Your task to perform on an android device: set default search engine in the chrome app Image 0: 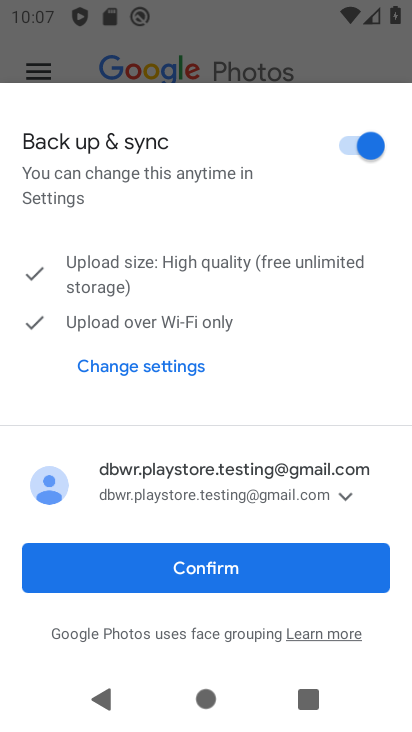
Step 0: press home button
Your task to perform on an android device: set default search engine in the chrome app Image 1: 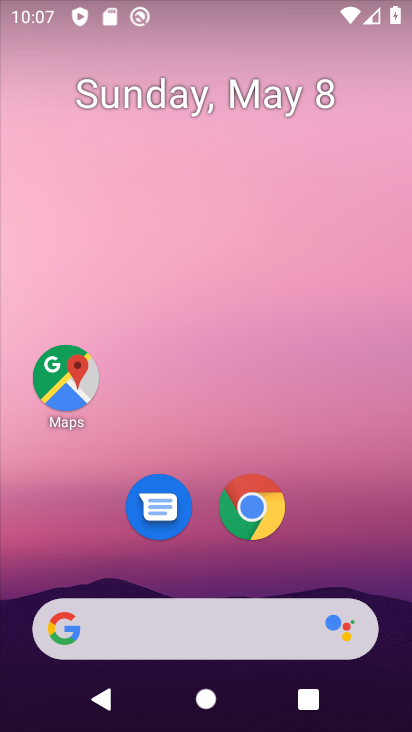
Step 1: click (248, 499)
Your task to perform on an android device: set default search engine in the chrome app Image 2: 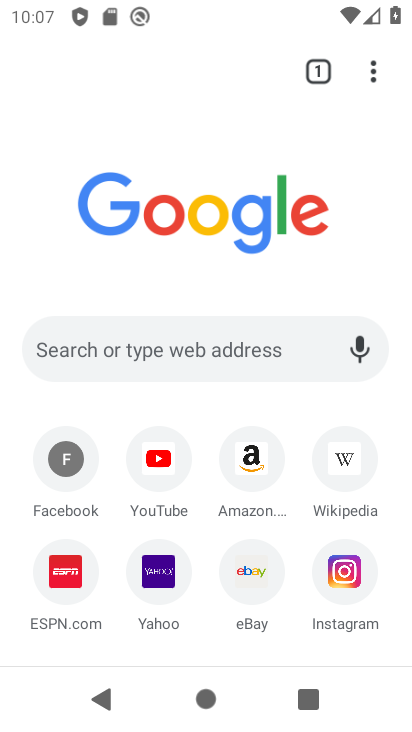
Step 2: click (365, 73)
Your task to perform on an android device: set default search engine in the chrome app Image 3: 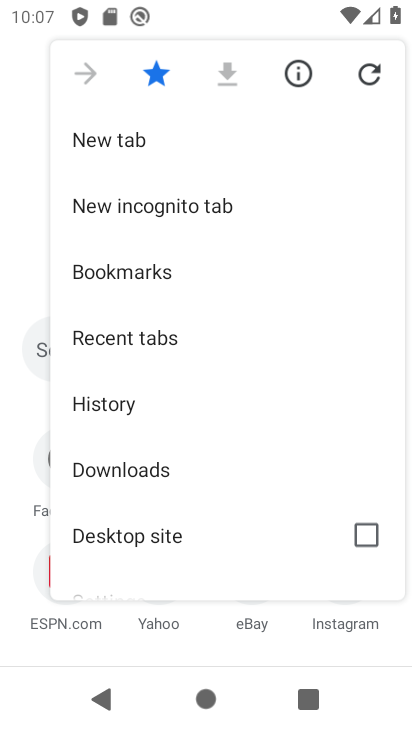
Step 3: drag from (188, 482) to (255, 122)
Your task to perform on an android device: set default search engine in the chrome app Image 4: 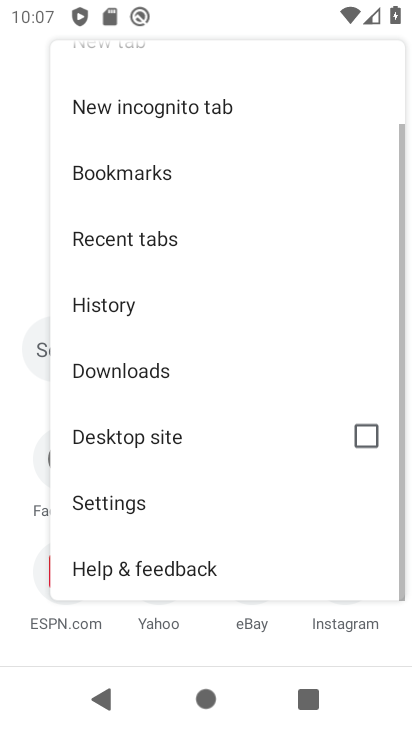
Step 4: click (148, 482)
Your task to perform on an android device: set default search engine in the chrome app Image 5: 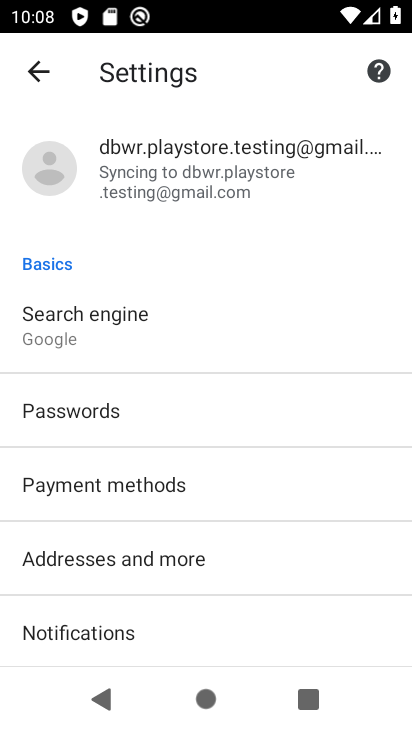
Step 5: click (110, 318)
Your task to perform on an android device: set default search engine in the chrome app Image 6: 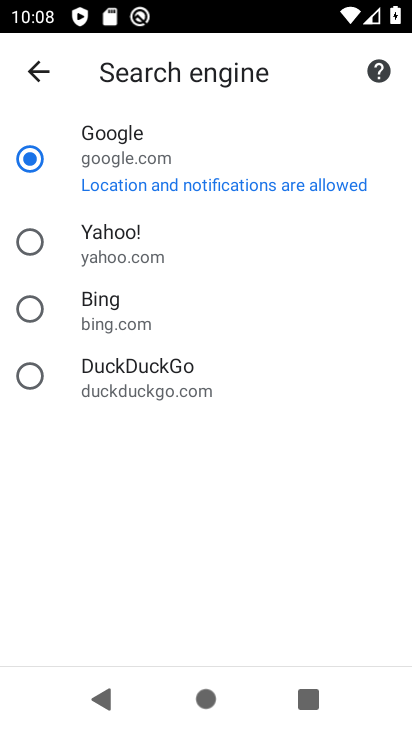
Step 6: click (154, 258)
Your task to perform on an android device: set default search engine in the chrome app Image 7: 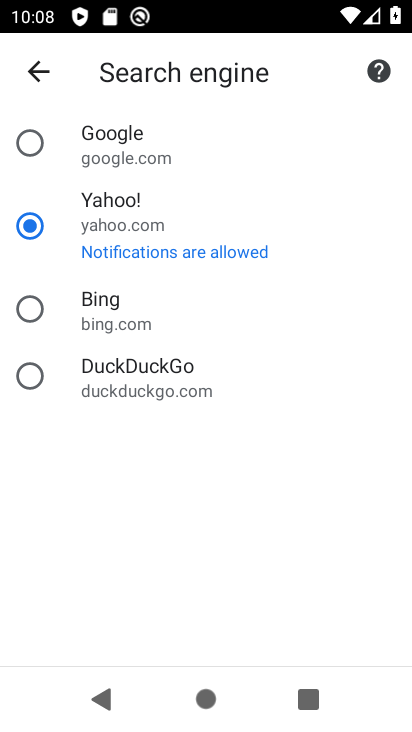
Step 7: task complete